Your task to perform on an android device: all mails in gmail Image 0: 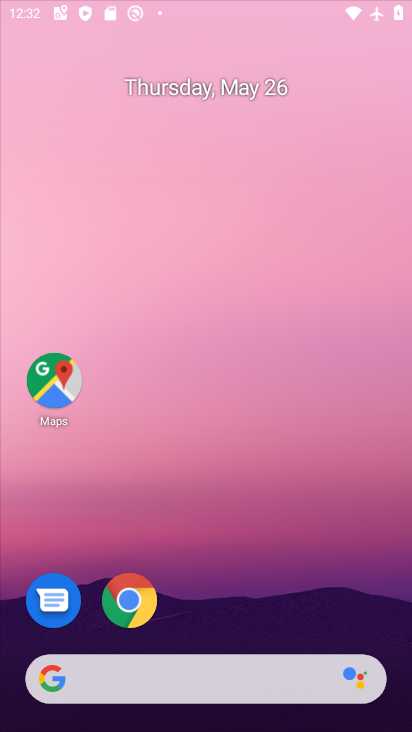
Step 0: drag from (303, 519) to (296, 97)
Your task to perform on an android device: all mails in gmail Image 1: 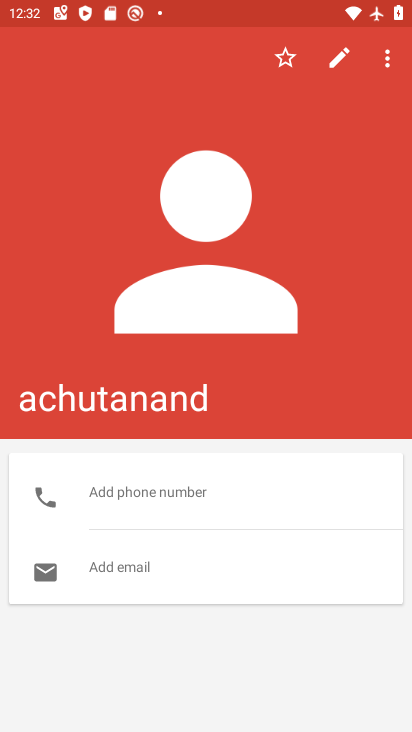
Step 1: press home button
Your task to perform on an android device: all mails in gmail Image 2: 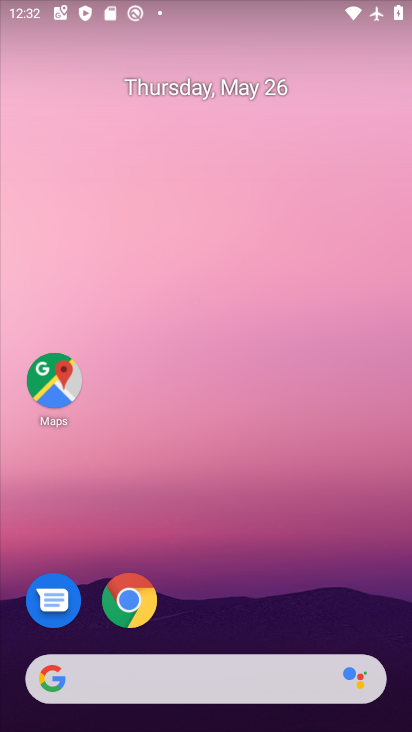
Step 2: drag from (222, 492) to (196, 164)
Your task to perform on an android device: all mails in gmail Image 3: 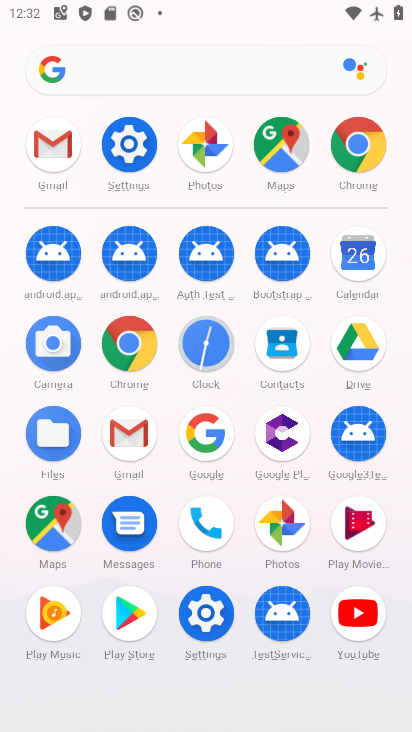
Step 3: click (54, 142)
Your task to perform on an android device: all mails in gmail Image 4: 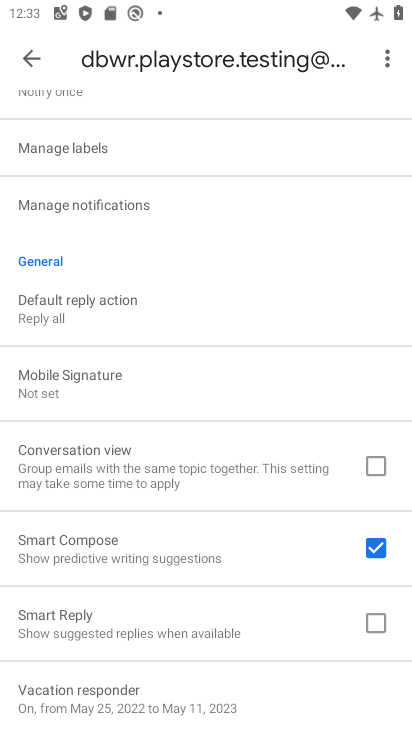
Step 4: click (30, 54)
Your task to perform on an android device: all mails in gmail Image 5: 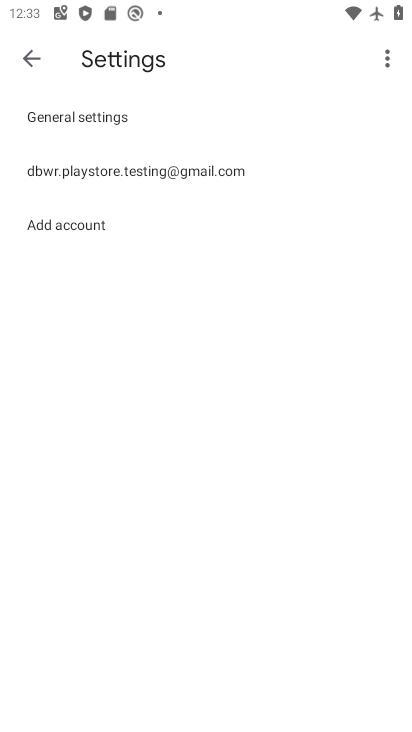
Step 5: click (9, 57)
Your task to perform on an android device: all mails in gmail Image 6: 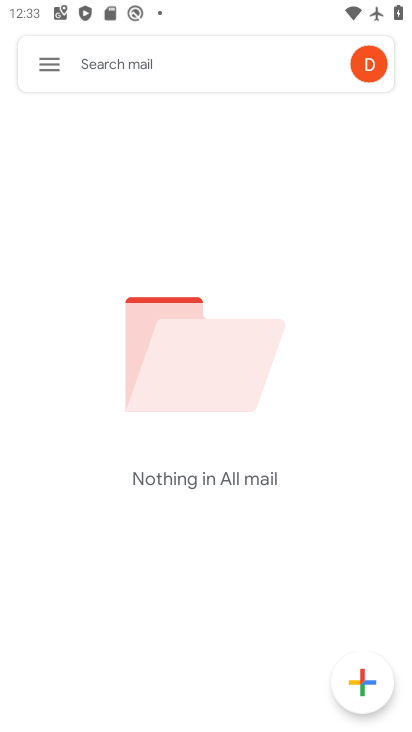
Step 6: click (20, 57)
Your task to perform on an android device: all mails in gmail Image 7: 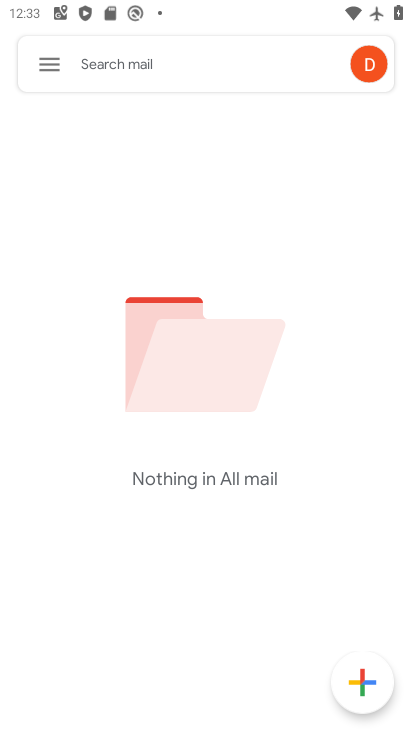
Step 7: click (59, 69)
Your task to perform on an android device: all mails in gmail Image 8: 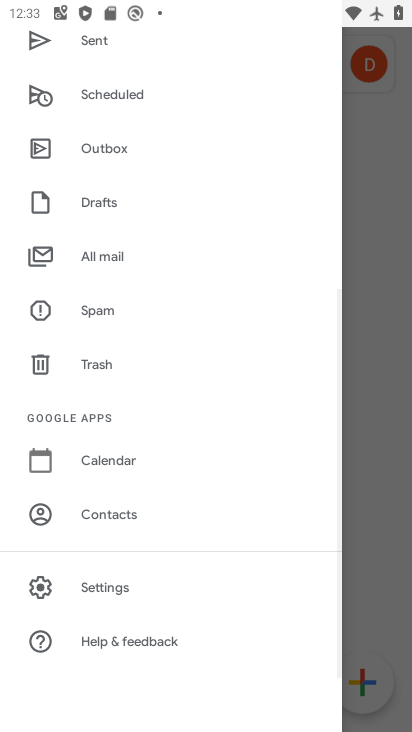
Step 8: click (105, 250)
Your task to perform on an android device: all mails in gmail Image 9: 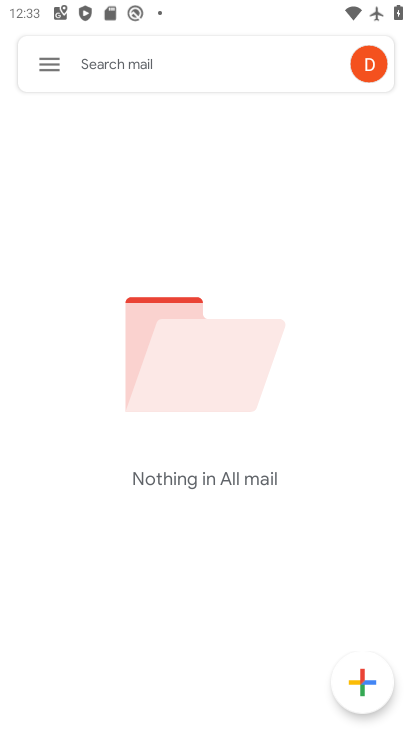
Step 9: task complete